Your task to perform on an android device: Open Google Maps and go to "Timeline" Image 0: 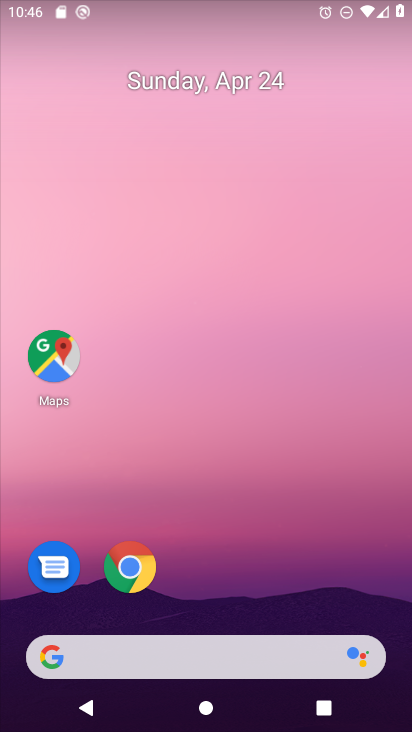
Step 0: drag from (149, 619) to (200, 181)
Your task to perform on an android device: Open Google Maps and go to "Timeline" Image 1: 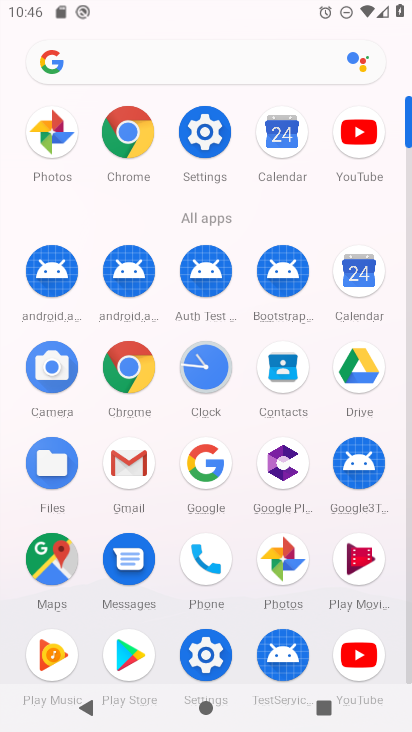
Step 1: click (63, 560)
Your task to perform on an android device: Open Google Maps and go to "Timeline" Image 2: 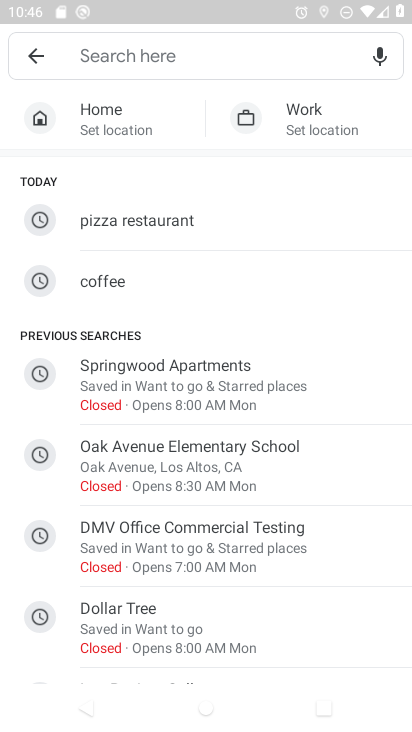
Step 2: click (42, 53)
Your task to perform on an android device: Open Google Maps and go to "Timeline" Image 3: 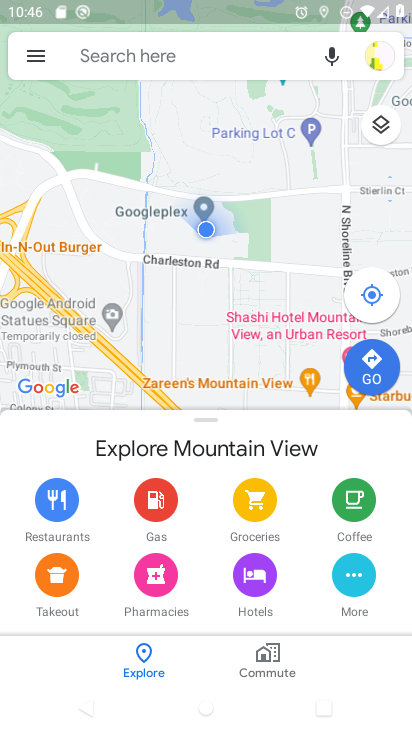
Step 3: click (40, 52)
Your task to perform on an android device: Open Google Maps and go to "Timeline" Image 4: 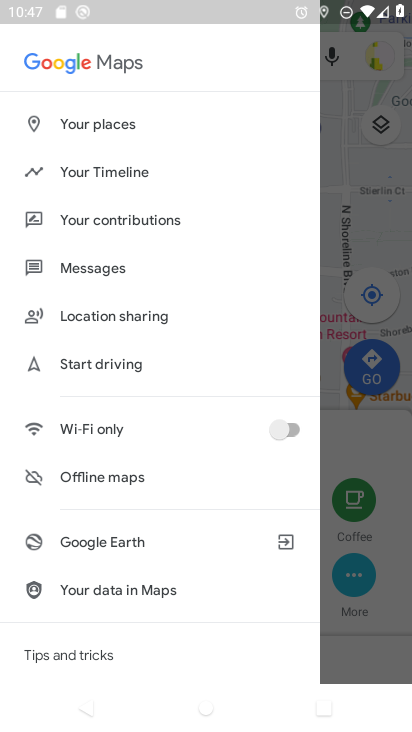
Step 4: click (112, 168)
Your task to perform on an android device: Open Google Maps and go to "Timeline" Image 5: 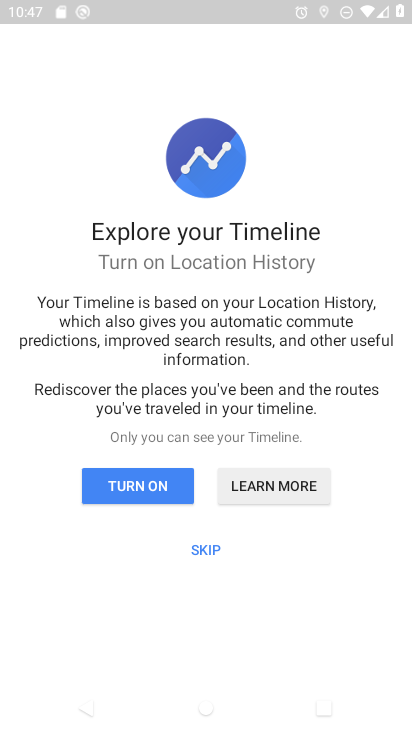
Step 5: task complete